Your task to perform on an android device: turn off improve location accuracy Image 0: 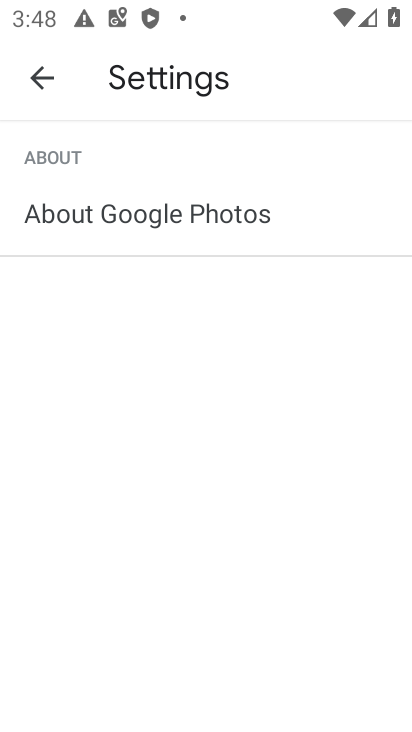
Step 0: click (29, 81)
Your task to perform on an android device: turn off improve location accuracy Image 1: 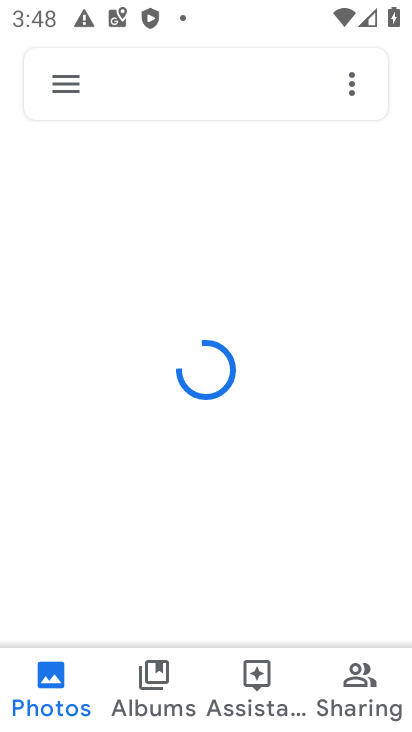
Step 1: press back button
Your task to perform on an android device: turn off improve location accuracy Image 2: 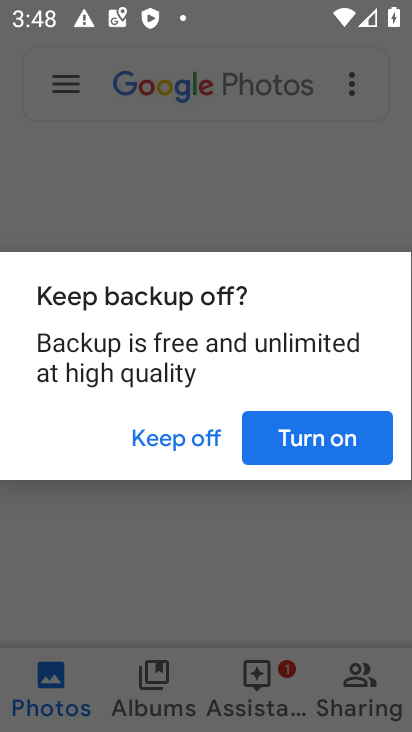
Step 2: click (165, 441)
Your task to perform on an android device: turn off improve location accuracy Image 3: 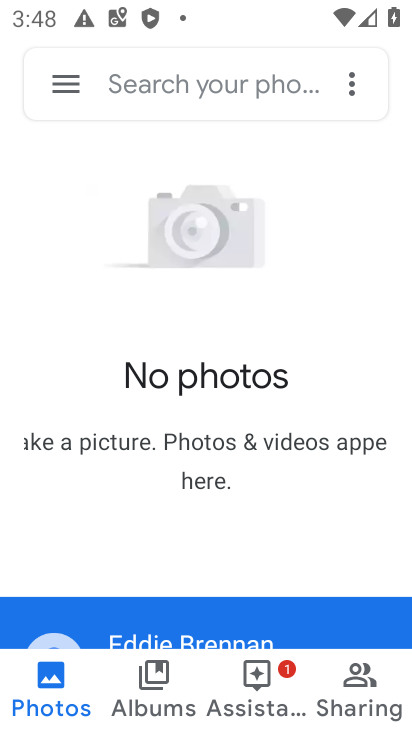
Step 3: press back button
Your task to perform on an android device: turn off improve location accuracy Image 4: 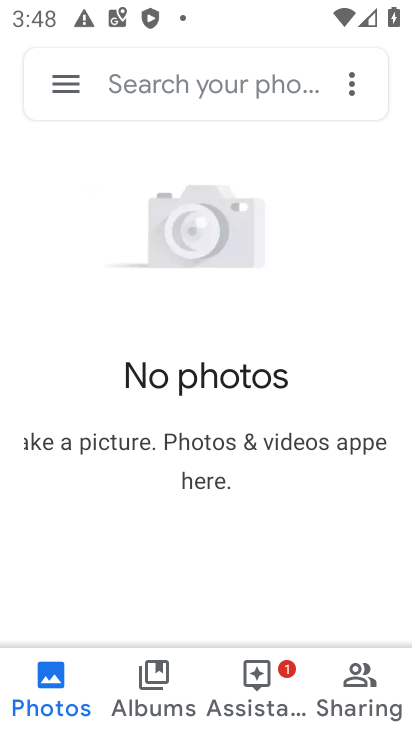
Step 4: press back button
Your task to perform on an android device: turn off improve location accuracy Image 5: 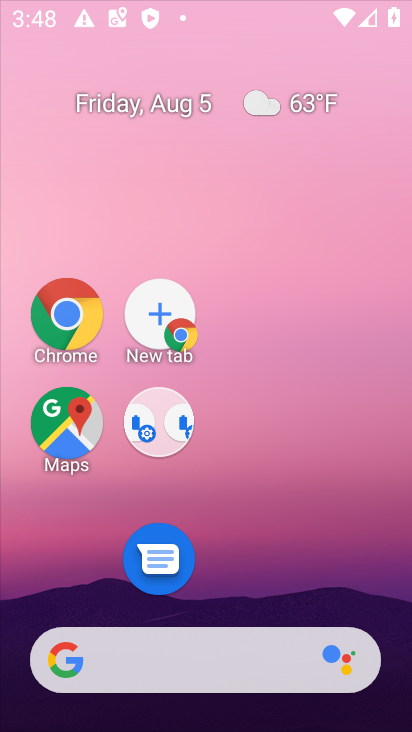
Step 5: press back button
Your task to perform on an android device: turn off improve location accuracy Image 6: 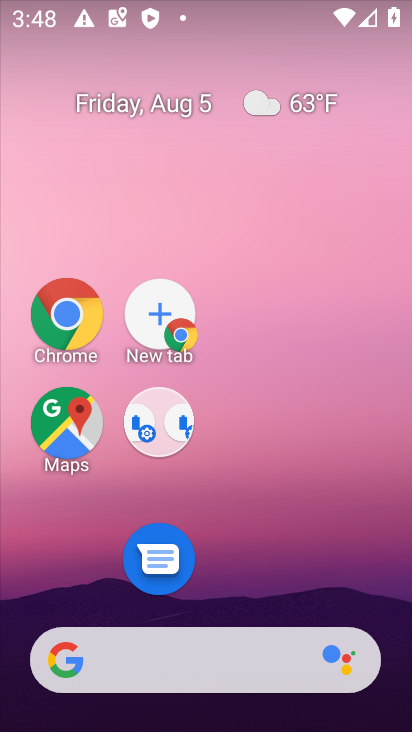
Step 6: press back button
Your task to perform on an android device: turn off improve location accuracy Image 7: 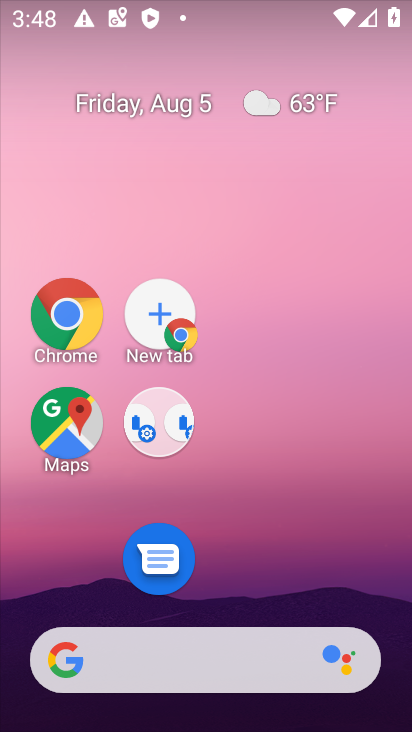
Step 7: press home button
Your task to perform on an android device: turn off improve location accuracy Image 8: 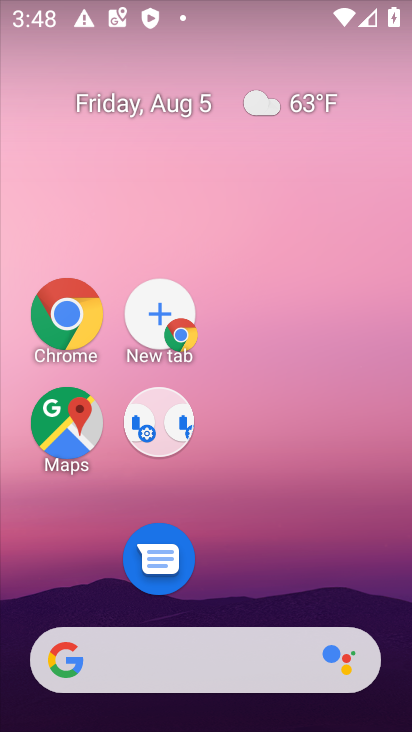
Step 8: drag from (247, 454) to (203, 146)
Your task to perform on an android device: turn off improve location accuracy Image 9: 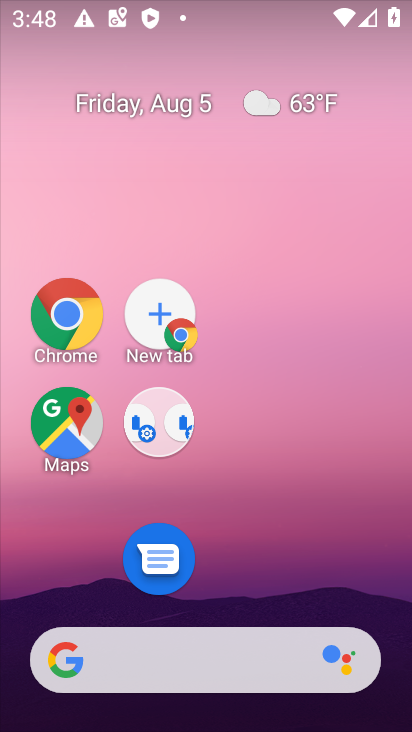
Step 9: drag from (213, 321) to (254, 15)
Your task to perform on an android device: turn off improve location accuracy Image 10: 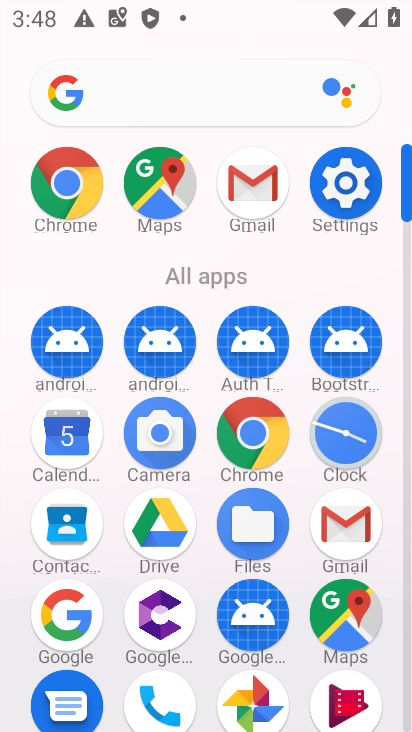
Step 10: click (335, 188)
Your task to perform on an android device: turn off improve location accuracy Image 11: 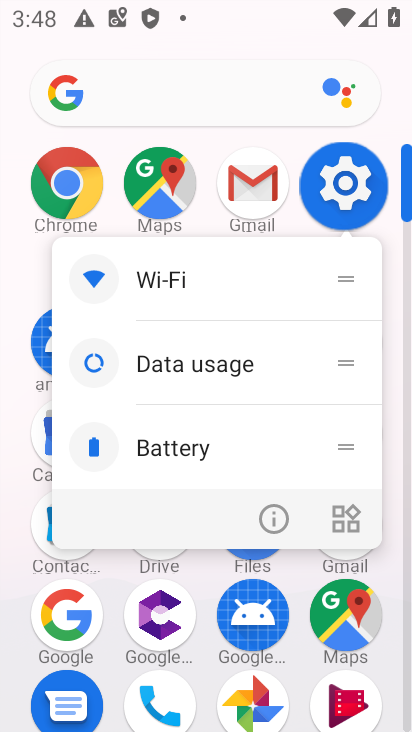
Step 11: click (334, 191)
Your task to perform on an android device: turn off improve location accuracy Image 12: 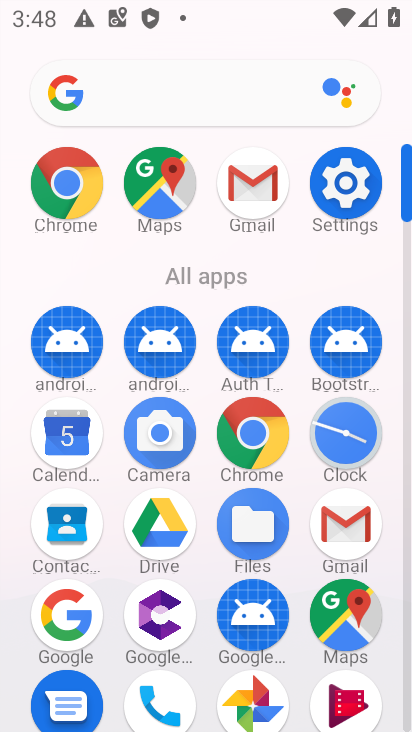
Step 12: click (329, 207)
Your task to perform on an android device: turn off improve location accuracy Image 13: 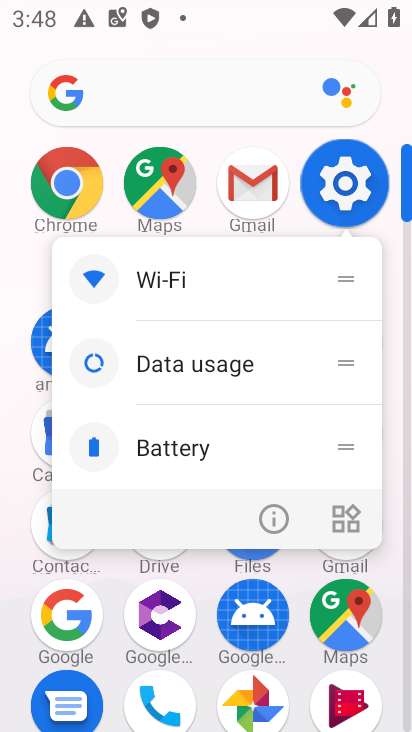
Step 13: click (329, 207)
Your task to perform on an android device: turn off improve location accuracy Image 14: 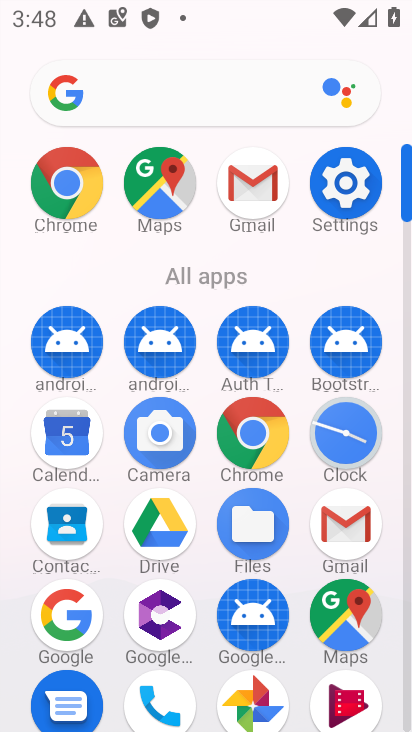
Step 14: click (338, 194)
Your task to perform on an android device: turn off improve location accuracy Image 15: 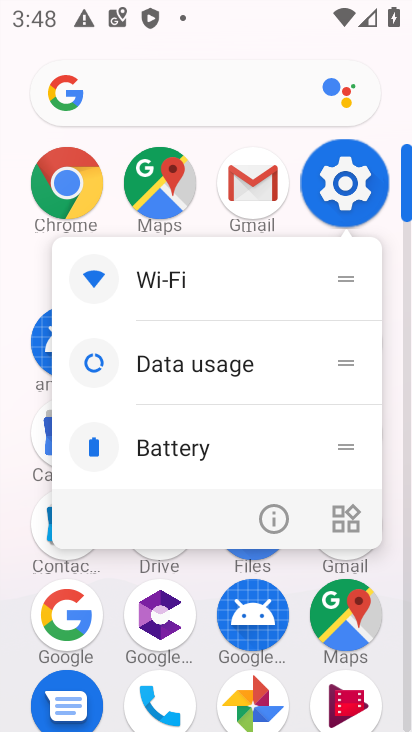
Step 15: click (339, 186)
Your task to perform on an android device: turn off improve location accuracy Image 16: 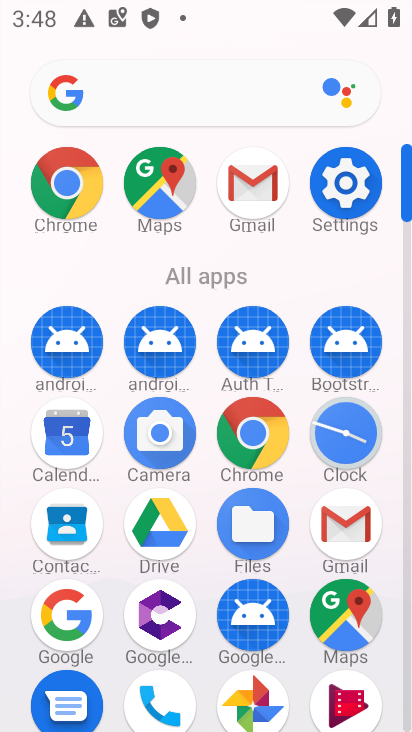
Step 16: click (329, 183)
Your task to perform on an android device: turn off improve location accuracy Image 17: 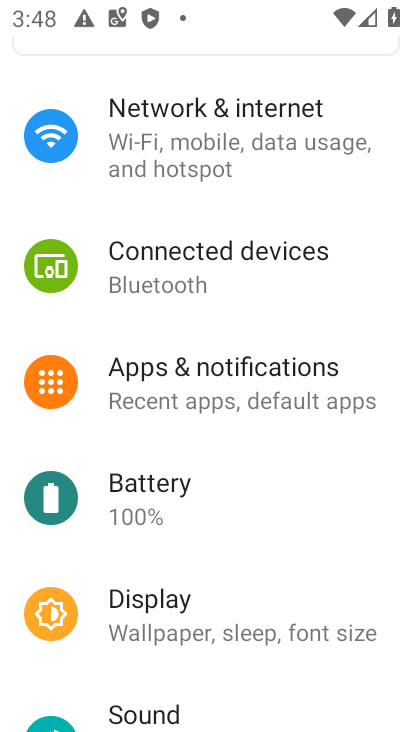
Step 17: drag from (188, 606) to (128, 198)
Your task to perform on an android device: turn off improve location accuracy Image 18: 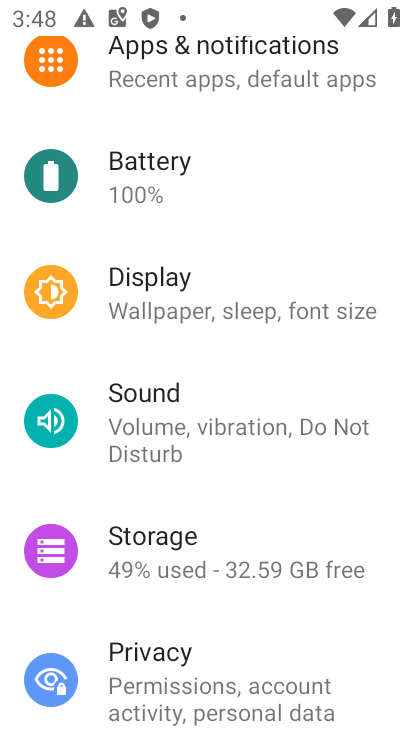
Step 18: drag from (167, 553) to (143, 201)
Your task to perform on an android device: turn off improve location accuracy Image 19: 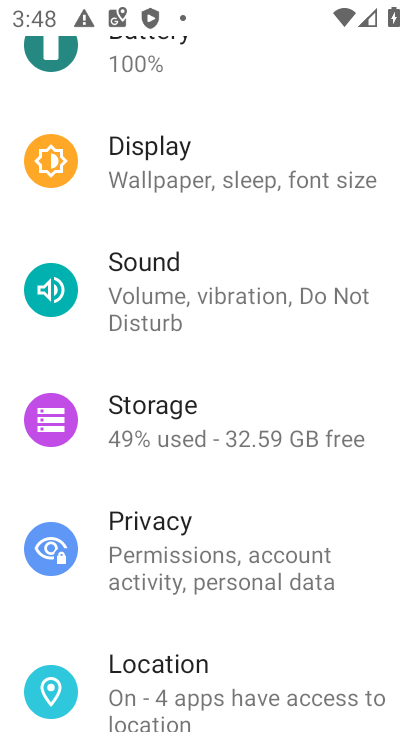
Step 19: drag from (147, 515) to (77, 176)
Your task to perform on an android device: turn off improve location accuracy Image 20: 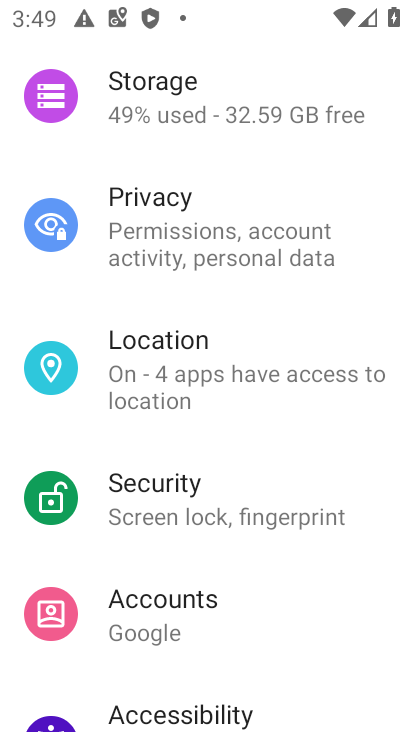
Step 20: drag from (187, 483) to (166, 259)
Your task to perform on an android device: turn off improve location accuracy Image 21: 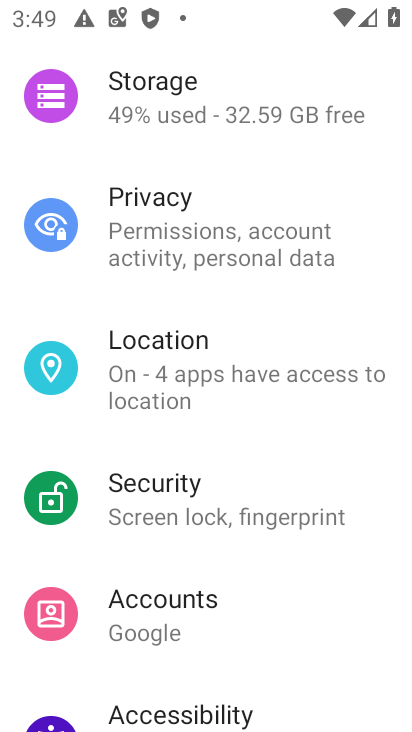
Step 21: click (170, 372)
Your task to perform on an android device: turn off improve location accuracy Image 22: 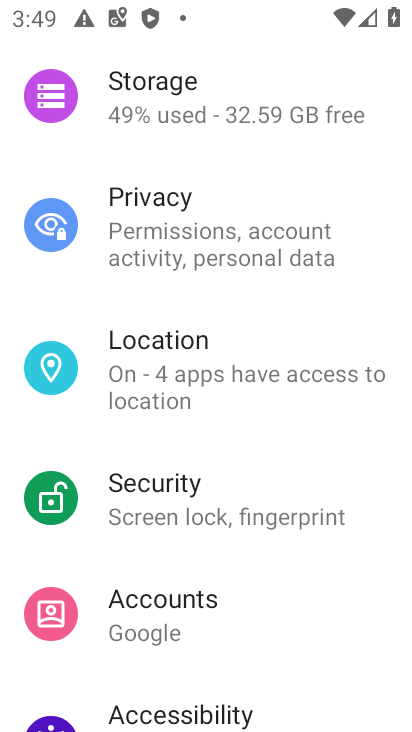
Step 22: click (180, 376)
Your task to perform on an android device: turn off improve location accuracy Image 23: 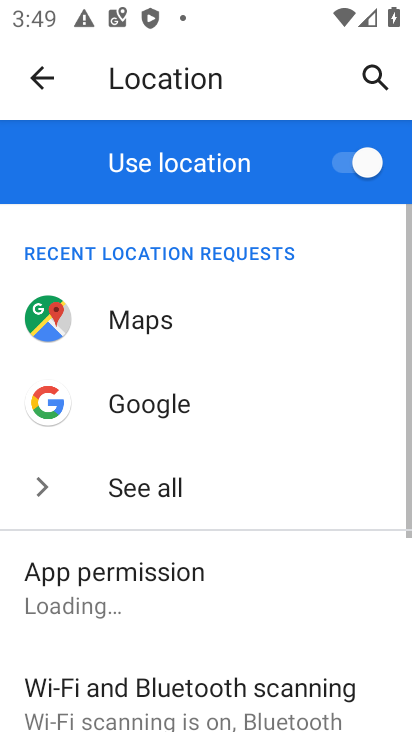
Step 23: drag from (146, 602) to (118, 280)
Your task to perform on an android device: turn off improve location accuracy Image 24: 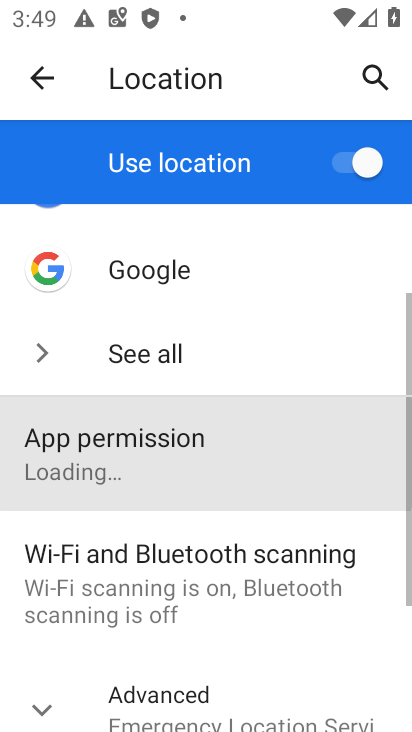
Step 24: drag from (174, 442) to (173, 394)
Your task to perform on an android device: turn off improve location accuracy Image 25: 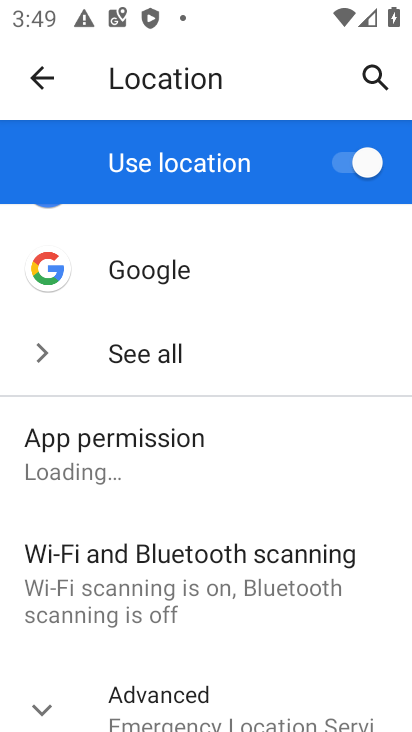
Step 25: drag from (159, 459) to (144, 213)
Your task to perform on an android device: turn off improve location accuracy Image 26: 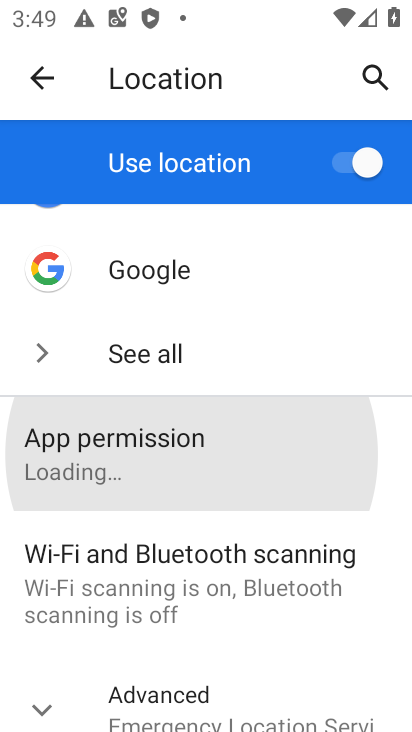
Step 26: drag from (198, 269) to (160, 9)
Your task to perform on an android device: turn off improve location accuracy Image 27: 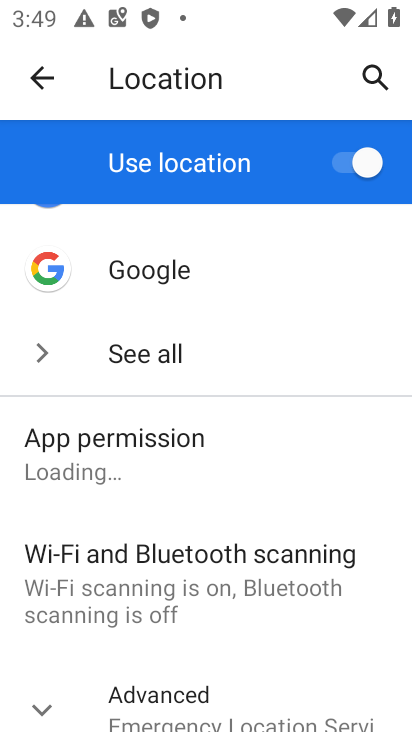
Step 27: drag from (168, 404) to (161, 139)
Your task to perform on an android device: turn off improve location accuracy Image 28: 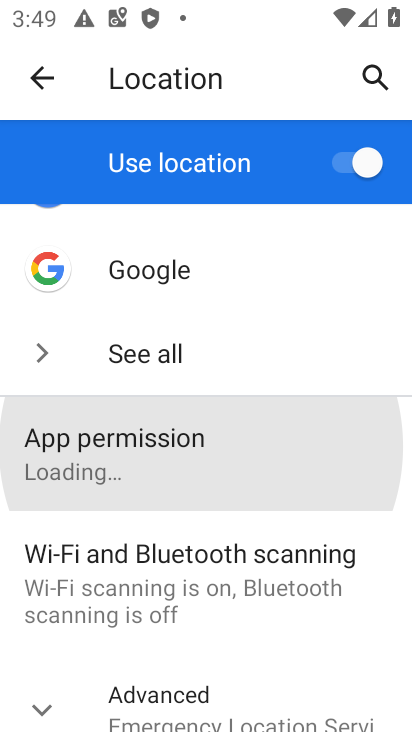
Step 28: drag from (155, 288) to (142, 178)
Your task to perform on an android device: turn off improve location accuracy Image 29: 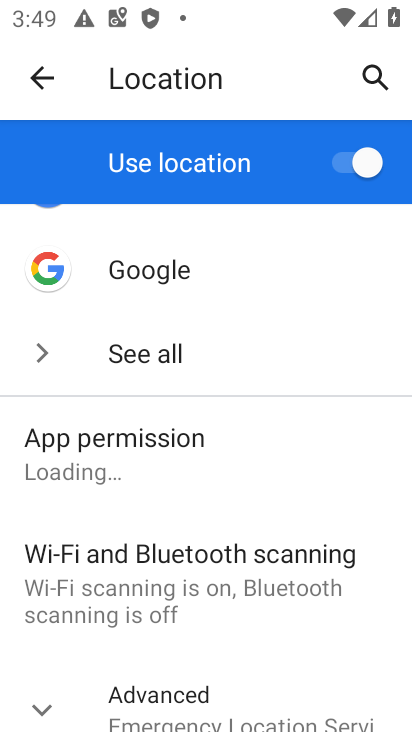
Step 29: drag from (183, 411) to (164, 174)
Your task to perform on an android device: turn off improve location accuracy Image 30: 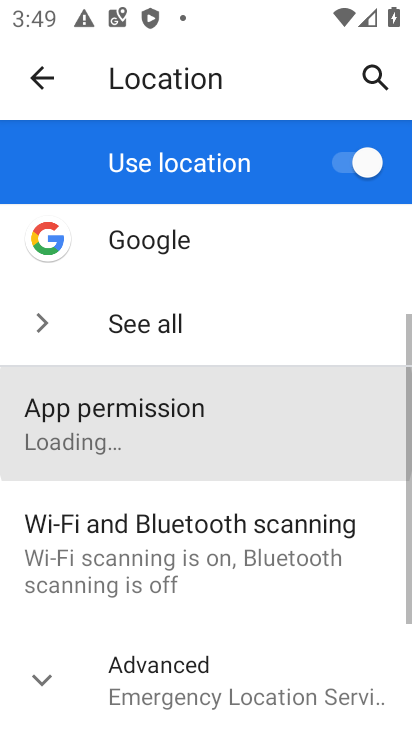
Step 30: drag from (154, 481) to (117, 277)
Your task to perform on an android device: turn off improve location accuracy Image 31: 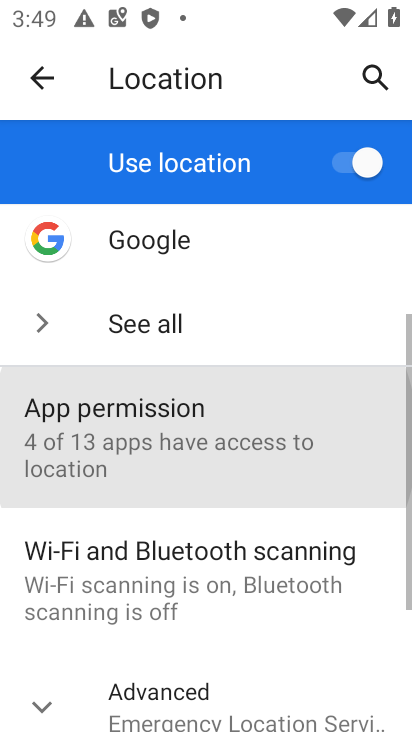
Step 31: drag from (138, 528) to (142, 340)
Your task to perform on an android device: turn off improve location accuracy Image 32: 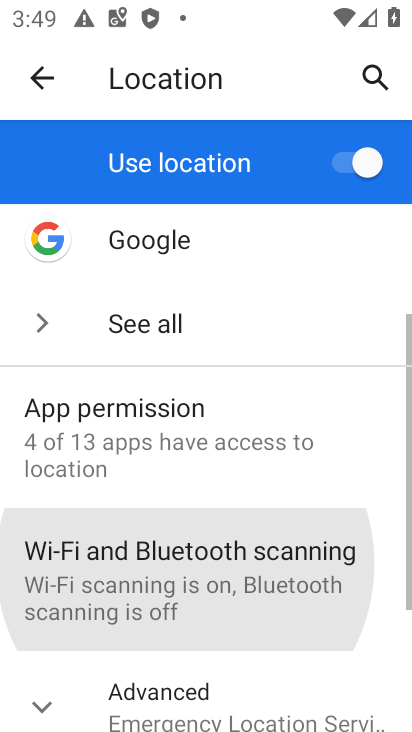
Step 32: drag from (242, 568) to (242, 387)
Your task to perform on an android device: turn off improve location accuracy Image 33: 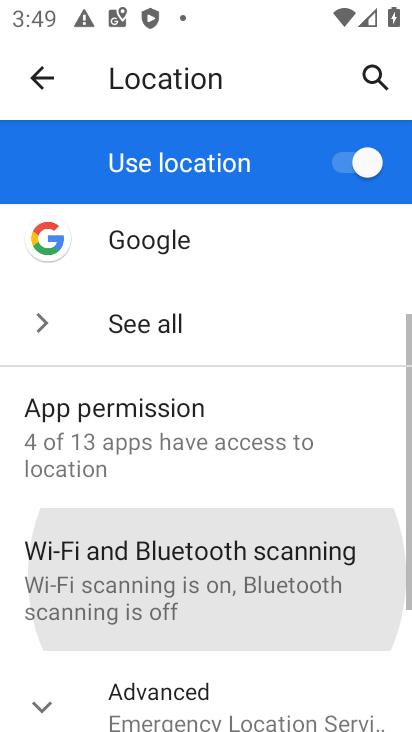
Step 33: drag from (266, 624) to (244, 357)
Your task to perform on an android device: turn off improve location accuracy Image 34: 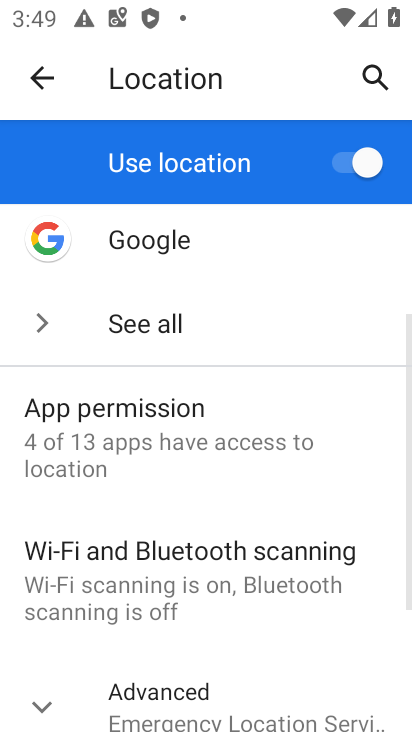
Step 34: drag from (238, 589) to (234, 307)
Your task to perform on an android device: turn off improve location accuracy Image 35: 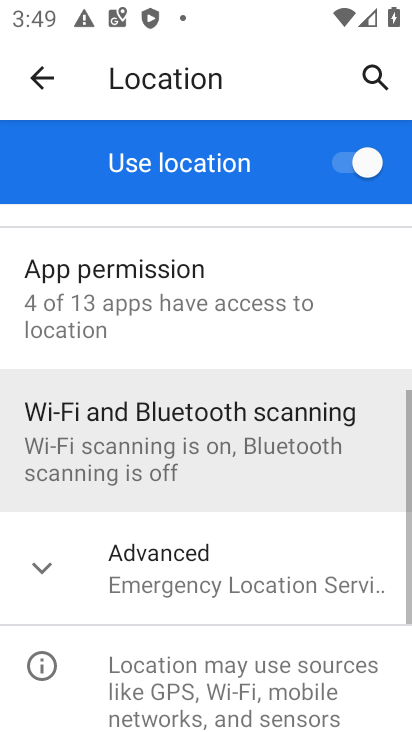
Step 35: drag from (262, 622) to (278, 402)
Your task to perform on an android device: turn off improve location accuracy Image 36: 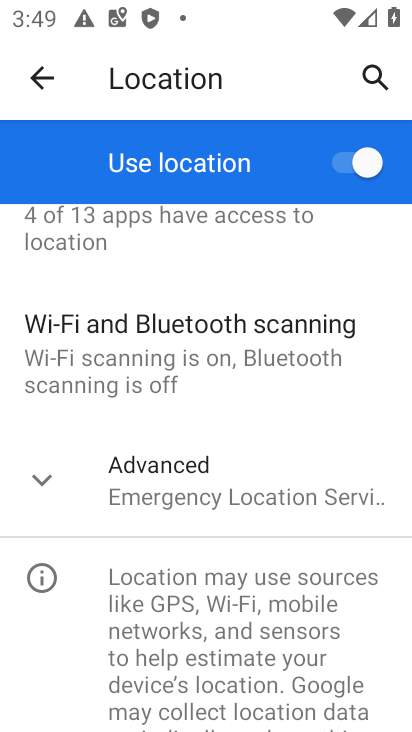
Step 36: click (169, 488)
Your task to perform on an android device: turn off improve location accuracy Image 37: 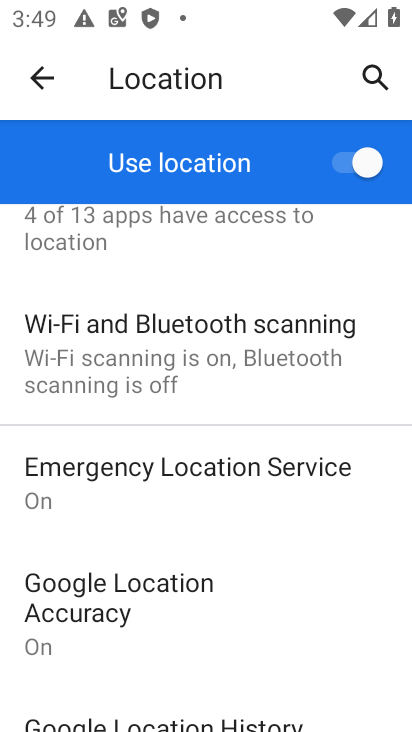
Step 37: click (95, 594)
Your task to perform on an android device: turn off improve location accuracy Image 38: 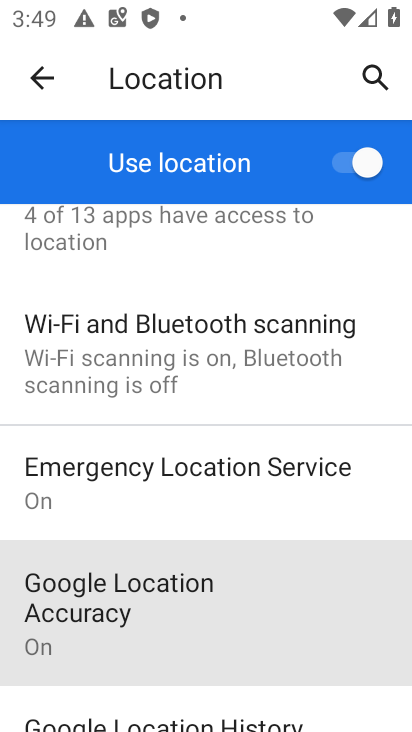
Step 38: click (100, 599)
Your task to perform on an android device: turn off improve location accuracy Image 39: 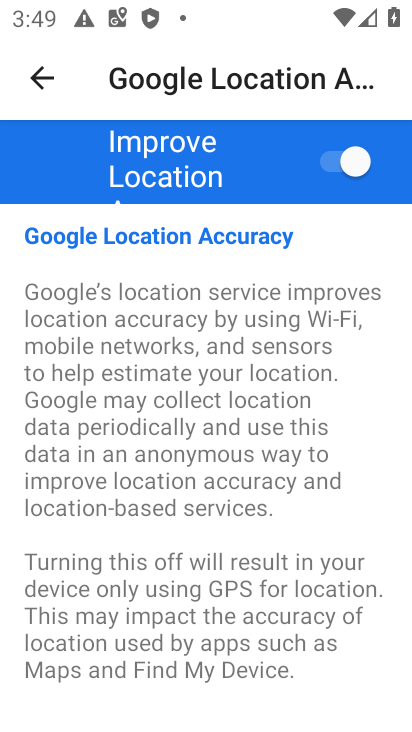
Step 39: click (346, 151)
Your task to perform on an android device: turn off improve location accuracy Image 40: 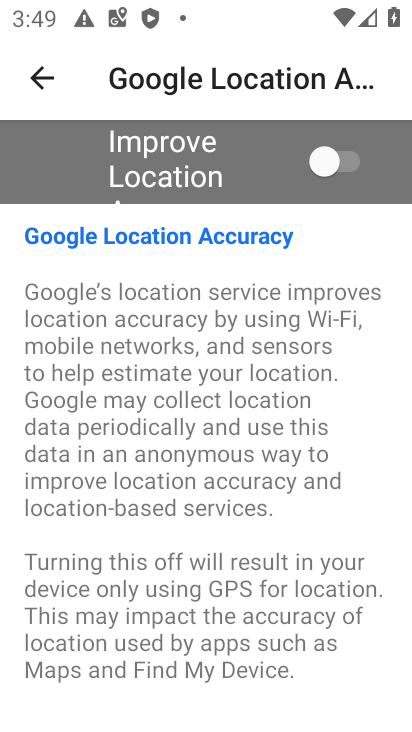
Step 40: task complete